Your task to perform on an android device: Go to network settings Image 0: 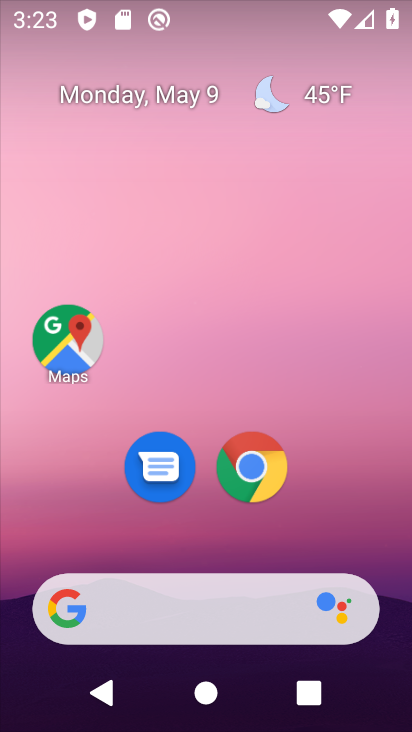
Step 0: drag from (329, 501) to (380, 137)
Your task to perform on an android device: Go to network settings Image 1: 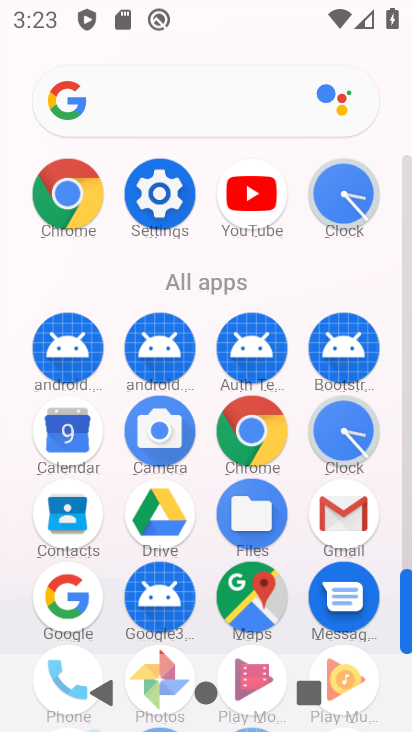
Step 1: click (147, 206)
Your task to perform on an android device: Go to network settings Image 2: 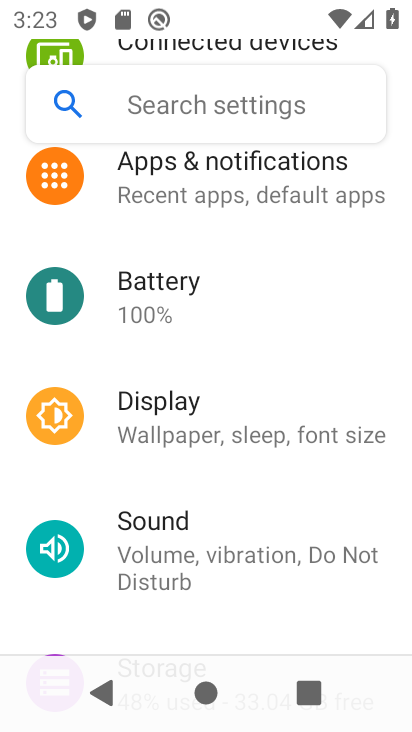
Step 2: drag from (213, 305) to (187, 553)
Your task to perform on an android device: Go to network settings Image 3: 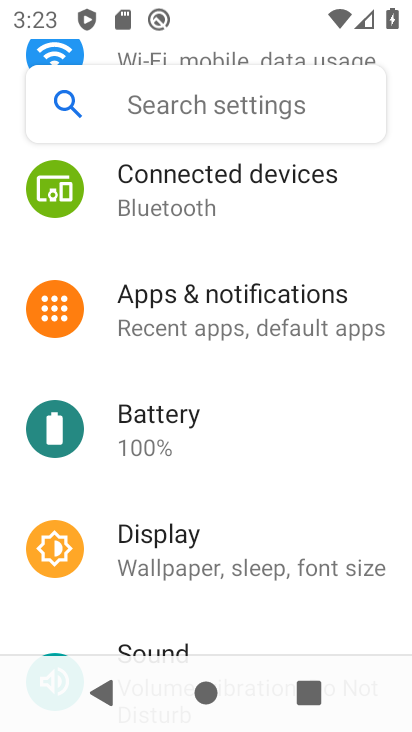
Step 3: drag from (236, 218) to (200, 571)
Your task to perform on an android device: Go to network settings Image 4: 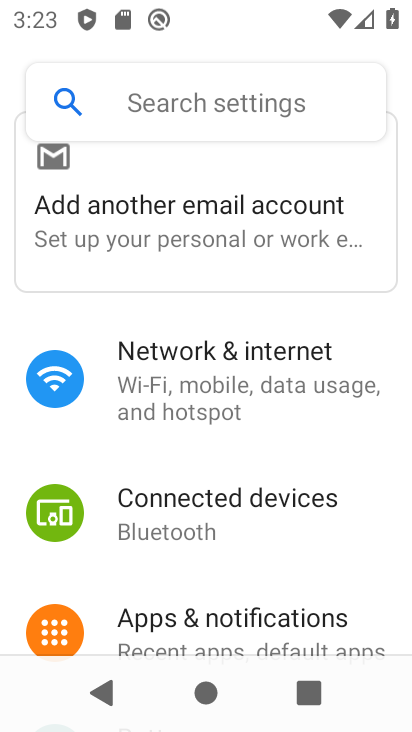
Step 4: click (202, 401)
Your task to perform on an android device: Go to network settings Image 5: 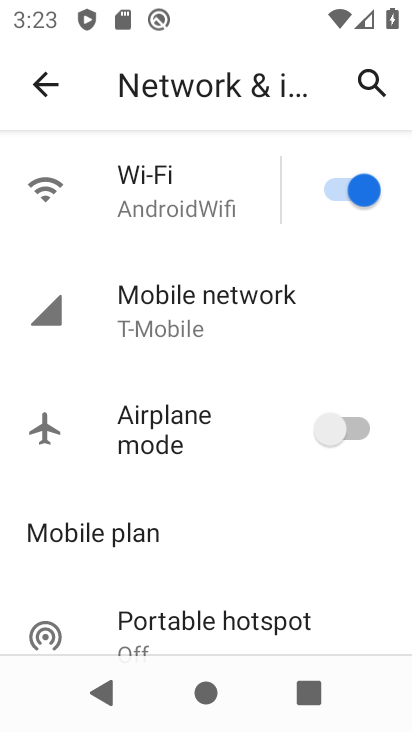
Step 5: task complete